Your task to perform on an android device: set the stopwatch Image 0: 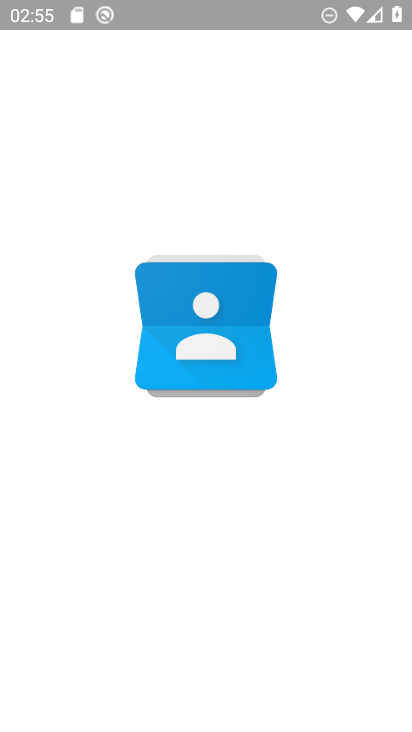
Step 0: drag from (200, 614) to (232, 48)
Your task to perform on an android device: set the stopwatch Image 1: 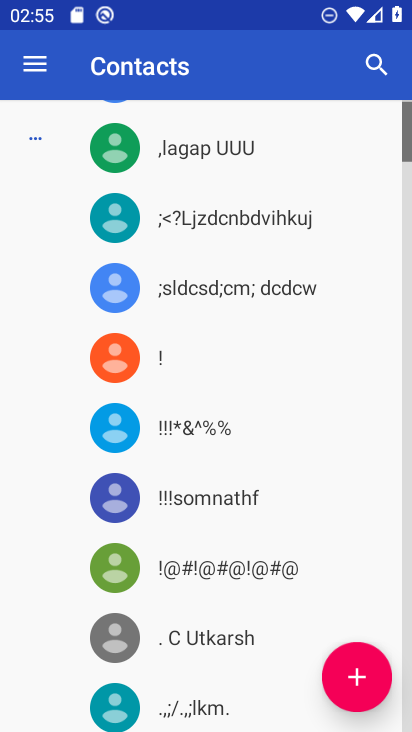
Step 1: press home button
Your task to perform on an android device: set the stopwatch Image 2: 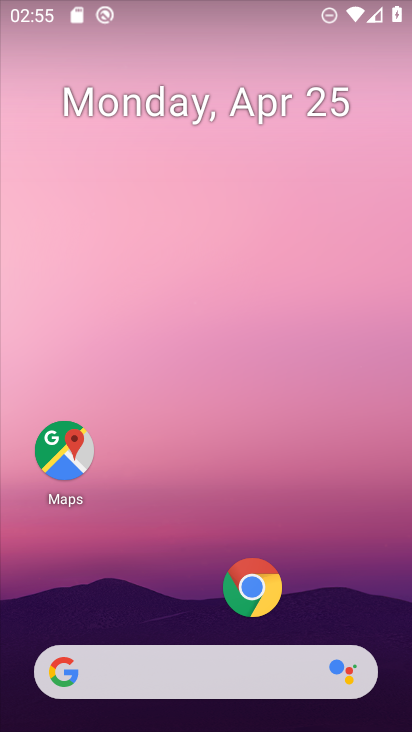
Step 2: drag from (193, 618) to (197, 78)
Your task to perform on an android device: set the stopwatch Image 3: 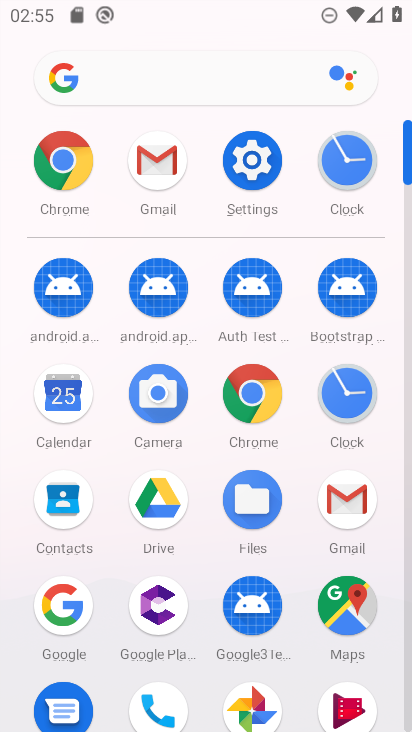
Step 3: click (346, 382)
Your task to perform on an android device: set the stopwatch Image 4: 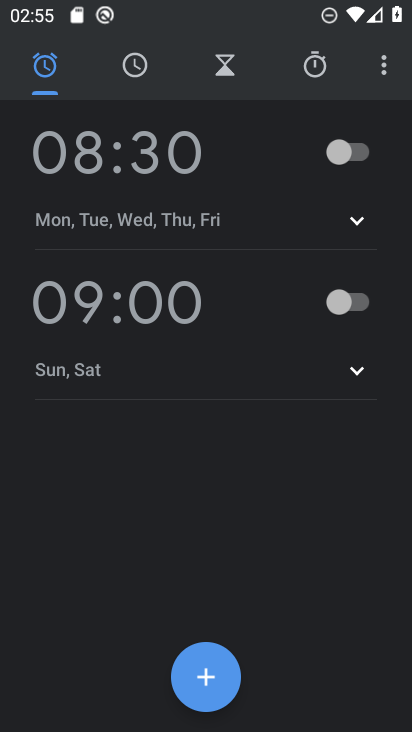
Step 4: click (311, 68)
Your task to perform on an android device: set the stopwatch Image 5: 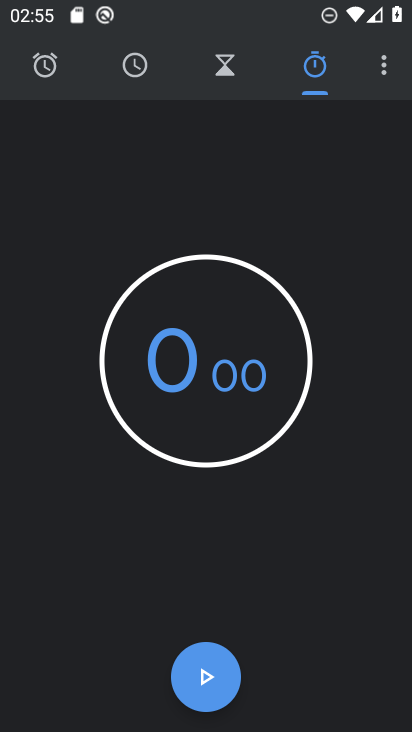
Step 5: click (202, 668)
Your task to perform on an android device: set the stopwatch Image 6: 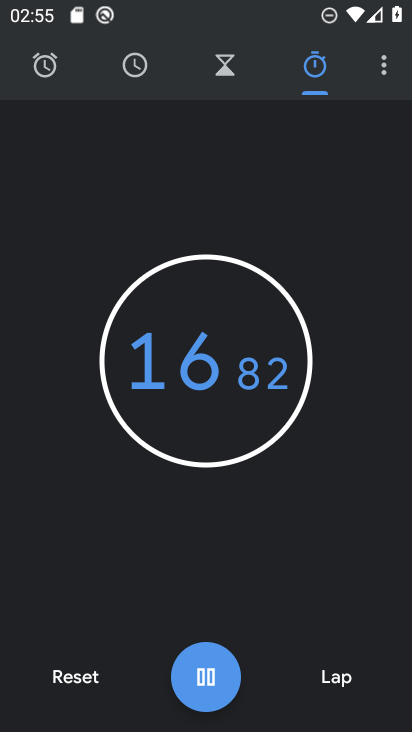
Step 6: click (81, 671)
Your task to perform on an android device: set the stopwatch Image 7: 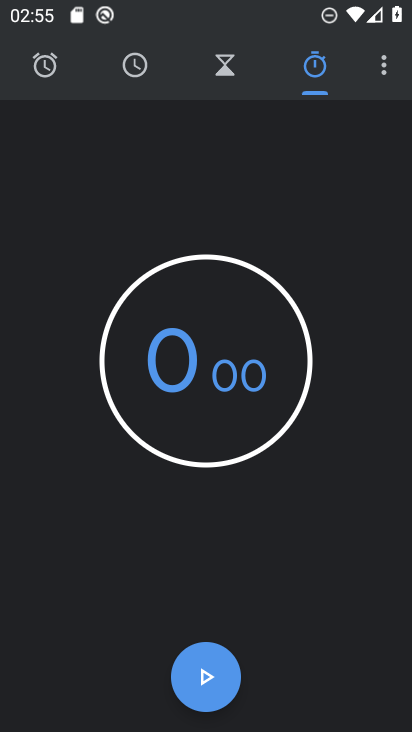
Step 7: task complete